Your task to perform on an android device: Search for vegetarian restaurants on Maps Image 0: 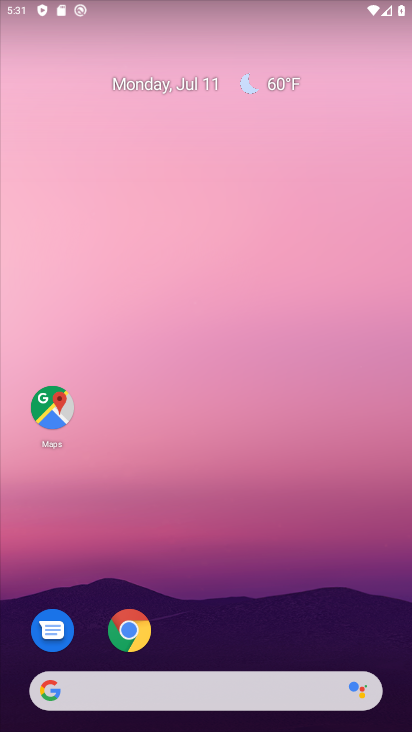
Step 0: drag from (176, 470) to (134, 7)
Your task to perform on an android device: Search for vegetarian restaurants on Maps Image 1: 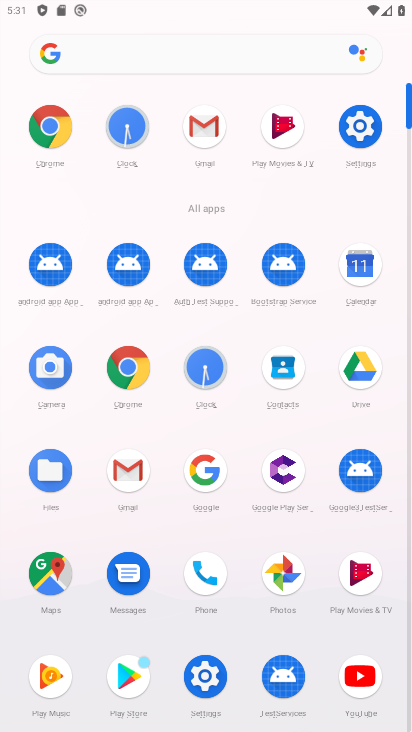
Step 1: click (49, 597)
Your task to perform on an android device: Search for vegetarian restaurants on Maps Image 2: 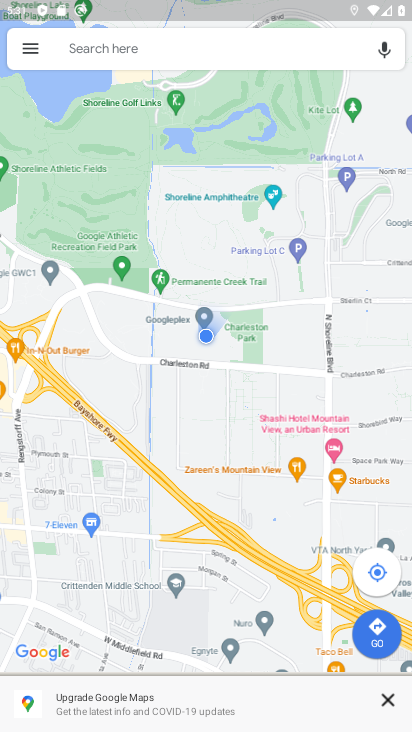
Step 2: click (120, 46)
Your task to perform on an android device: Search for vegetarian restaurants on Maps Image 3: 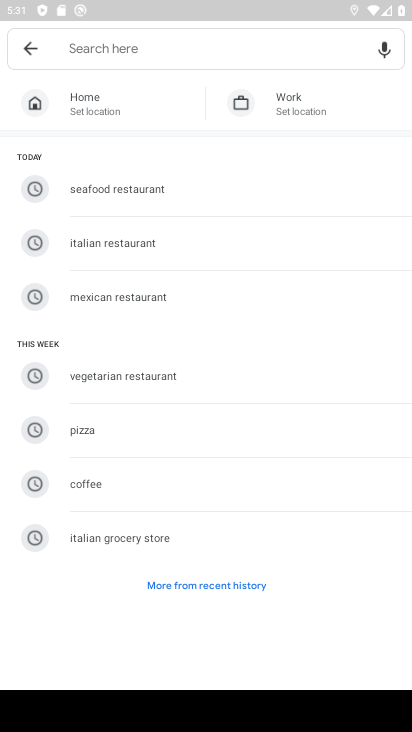
Step 3: click (121, 386)
Your task to perform on an android device: Search for vegetarian restaurants on Maps Image 4: 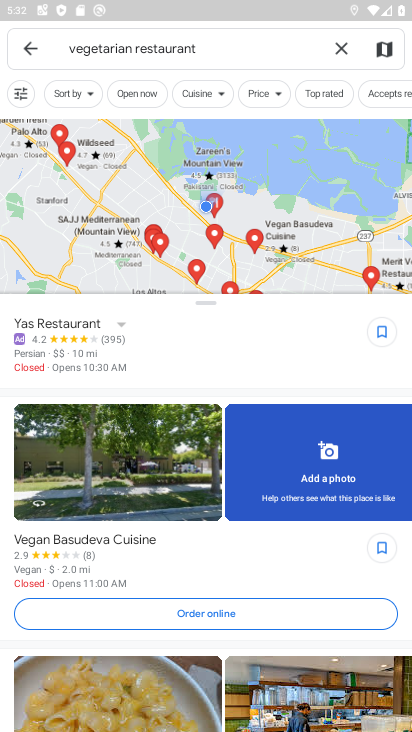
Step 4: task complete